Your task to perform on an android device: make emails show in primary in the gmail app Image 0: 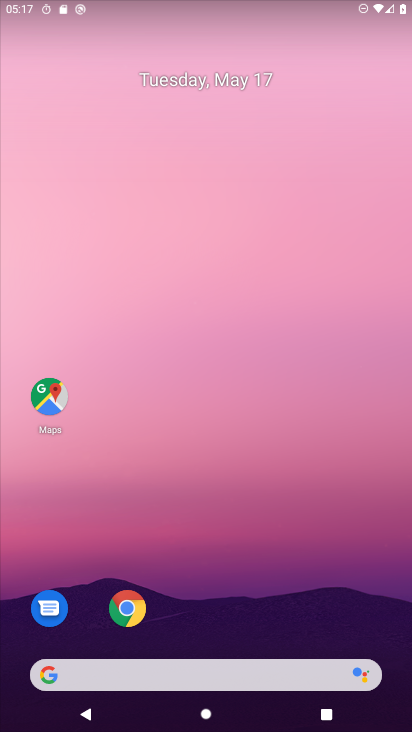
Step 0: drag from (198, 657) to (226, 338)
Your task to perform on an android device: make emails show in primary in the gmail app Image 1: 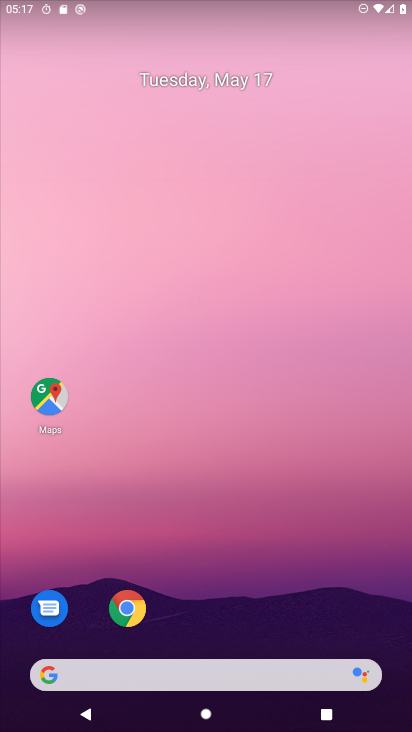
Step 1: drag from (145, 668) to (220, 366)
Your task to perform on an android device: make emails show in primary in the gmail app Image 2: 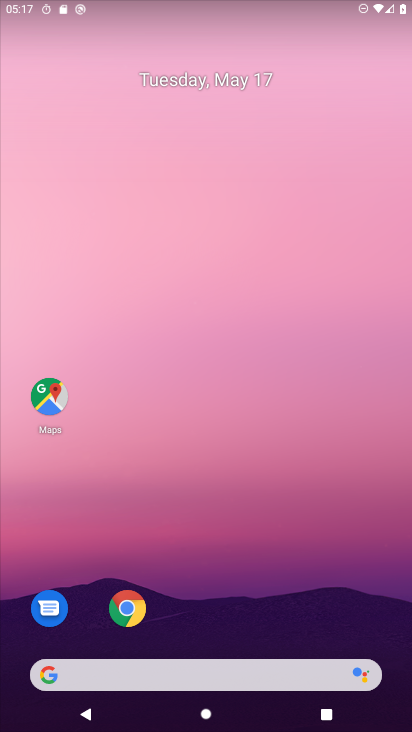
Step 2: drag from (225, 661) to (242, 306)
Your task to perform on an android device: make emails show in primary in the gmail app Image 3: 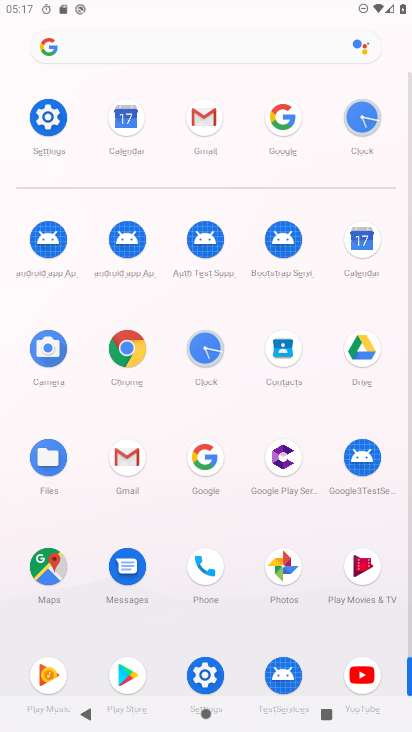
Step 3: click (207, 132)
Your task to perform on an android device: make emails show in primary in the gmail app Image 4: 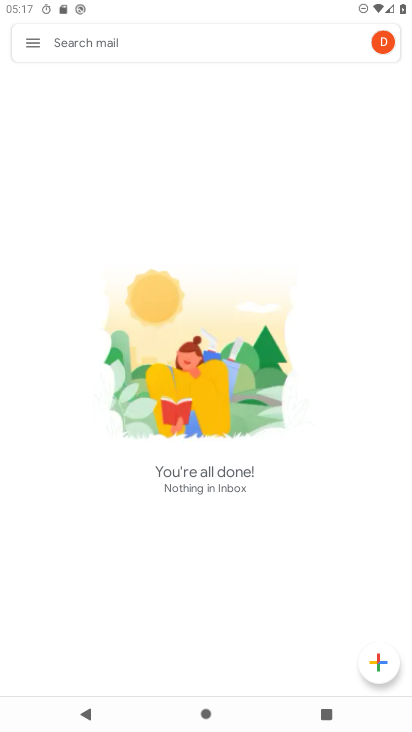
Step 4: click (33, 44)
Your task to perform on an android device: make emails show in primary in the gmail app Image 5: 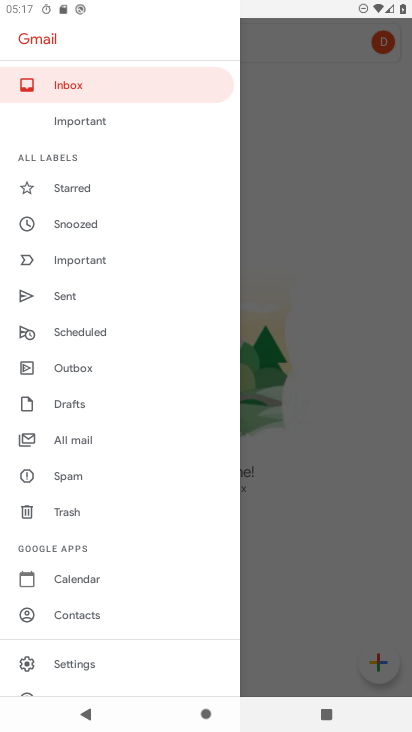
Step 5: click (83, 671)
Your task to perform on an android device: make emails show in primary in the gmail app Image 6: 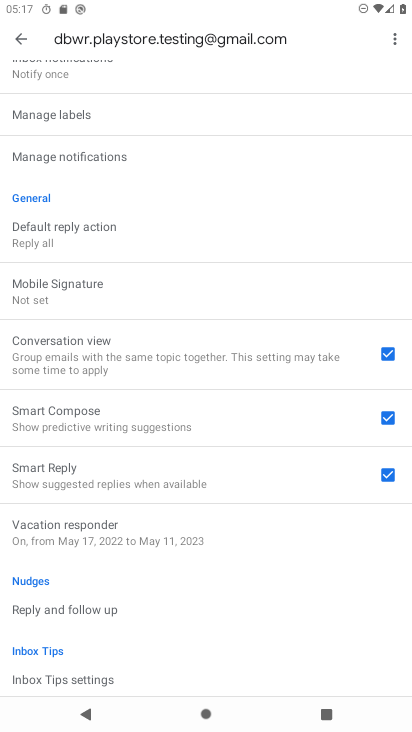
Step 6: drag from (120, 123) to (148, 568)
Your task to perform on an android device: make emails show in primary in the gmail app Image 7: 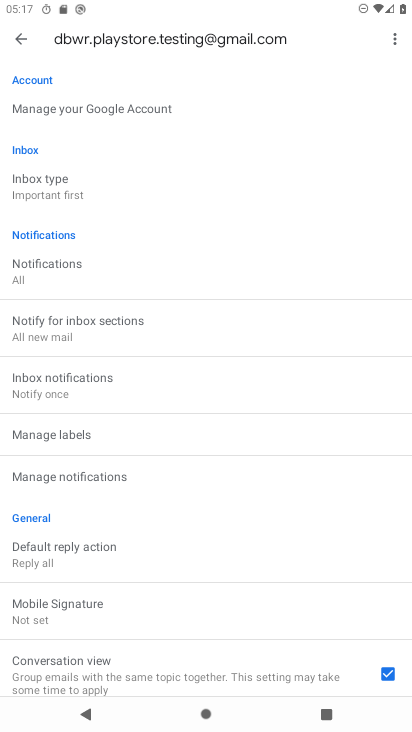
Step 7: click (65, 183)
Your task to perform on an android device: make emails show in primary in the gmail app Image 8: 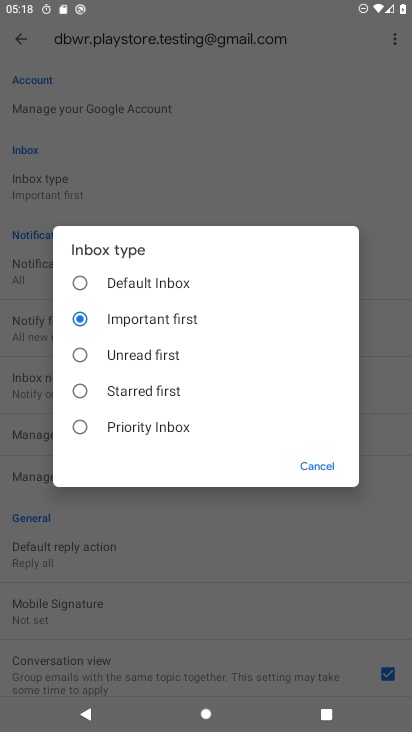
Step 8: click (105, 292)
Your task to perform on an android device: make emails show in primary in the gmail app Image 9: 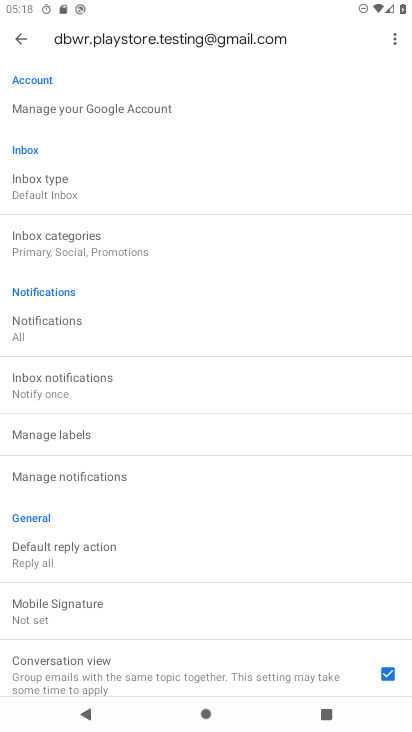
Step 9: click (86, 249)
Your task to perform on an android device: make emails show in primary in the gmail app Image 10: 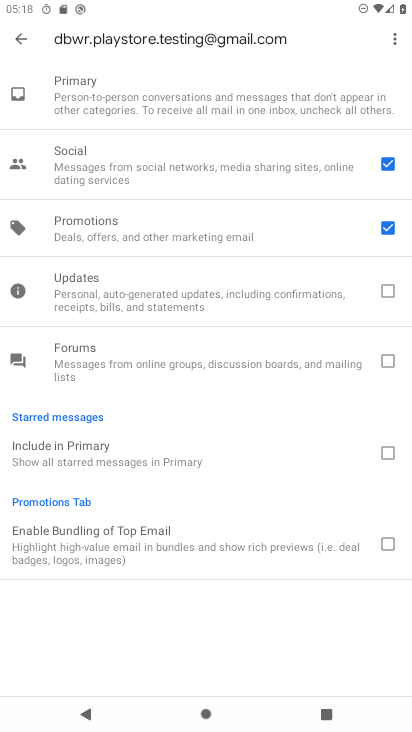
Step 10: click (388, 167)
Your task to perform on an android device: make emails show in primary in the gmail app Image 11: 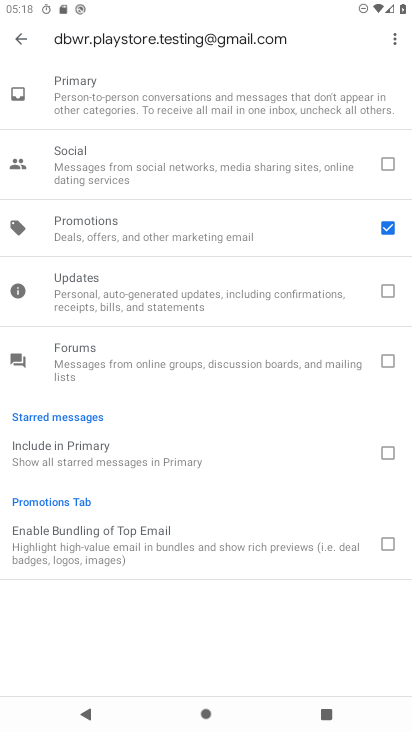
Step 11: click (387, 227)
Your task to perform on an android device: make emails show in primary in the gmail app Image 12: 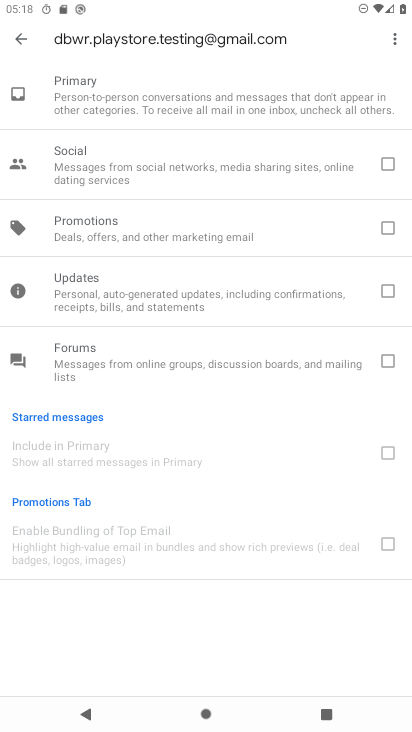
Step 12: click (24, 43)
Your task to perform on an android device: make emails show in primary in the gmail app Image 13: 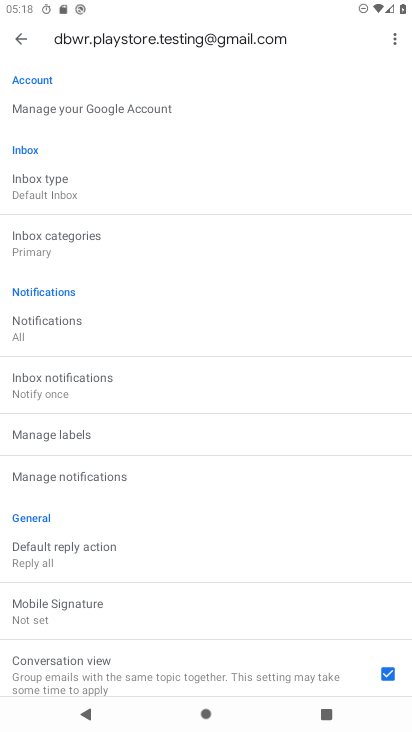
Step 13: task complete